Your task to perform on an android device: Open Youtube and go to "Your channel" Image 0: 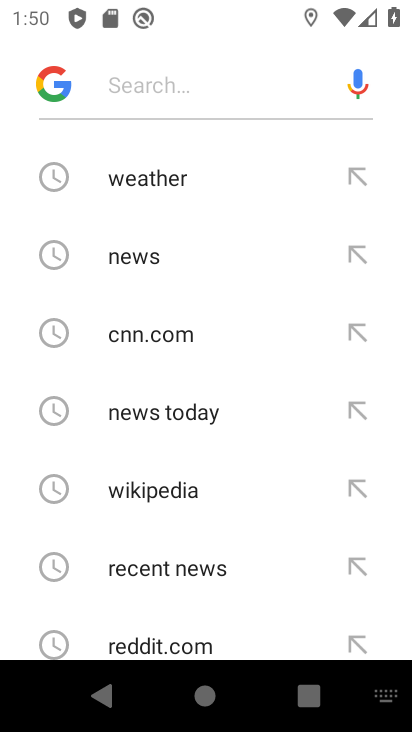
Step 0: press home button
Your task to perform on an android device: Open Youtube and go to "Your channel" Image 1: 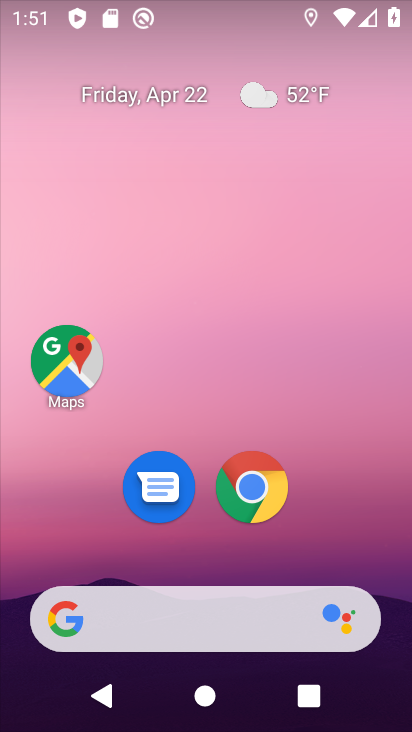
Step 1: drag from (195, 549) to (273, 10)
Your task to perform on an android device: Open Youtube and go to "Your channel" Image 2: 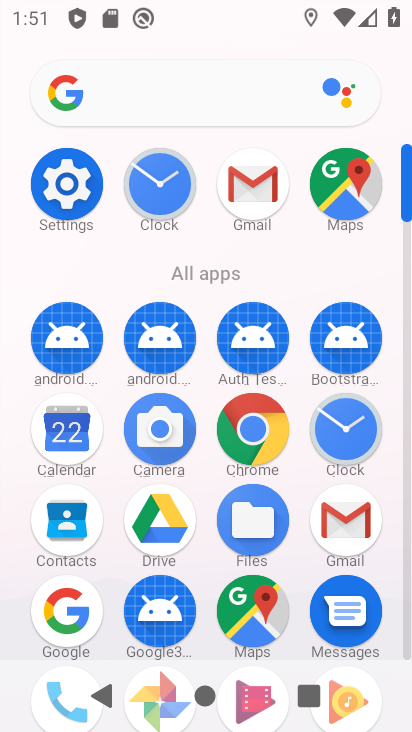
Step 2: drag from (292, 562) to (332, 114)
Your task to perform on an android device: Open Youtube and go to "Your channel" Image 3: 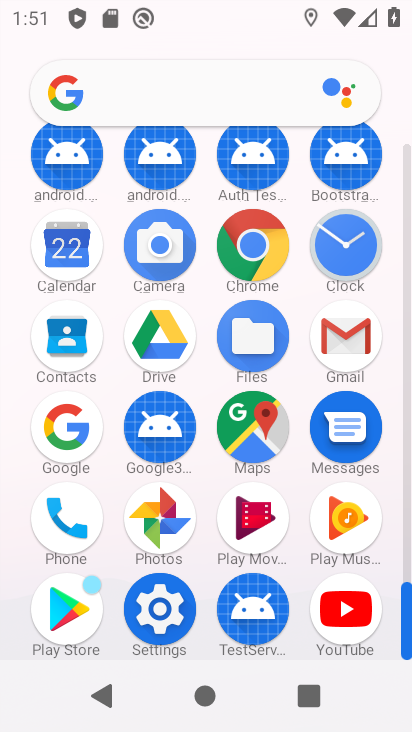
Step 3: click (348, 605)
Your task to perform on an android device: Open Youtube and go to "Your channel" Image 4: 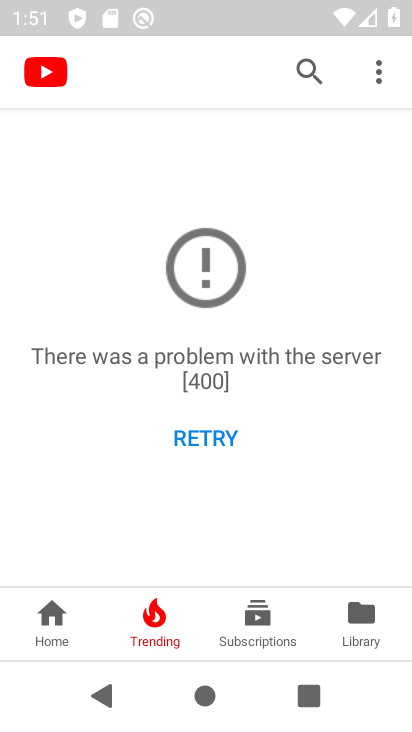
Step 4: click (378, 93)
Your task to perform on an android device: Open Youtube and go to "Your channel" Image 5: 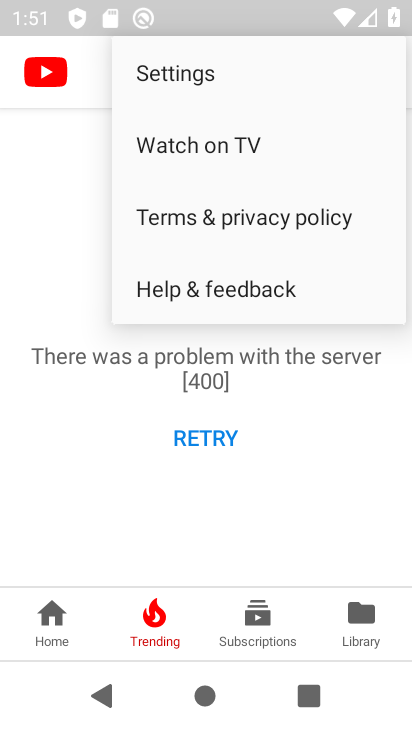
Step 5: click (153, 85)
Your task to perform on an android device: Open Youtube and go to "Your channel" Image 6: 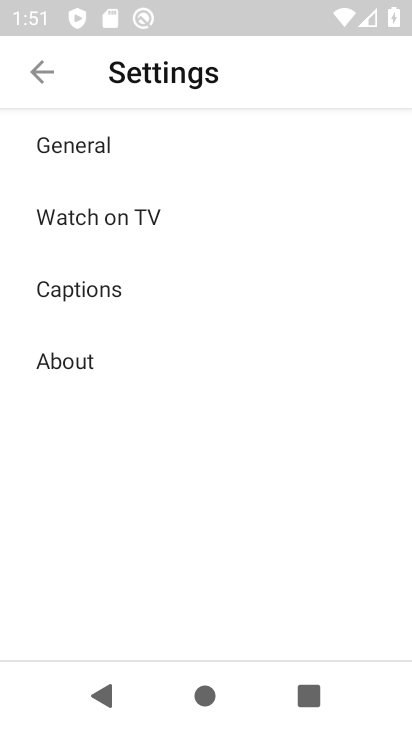
Step 6: click (68, 140)
Your task to perform on an android device: Open Youtube and go to "Your channel" Image 7: 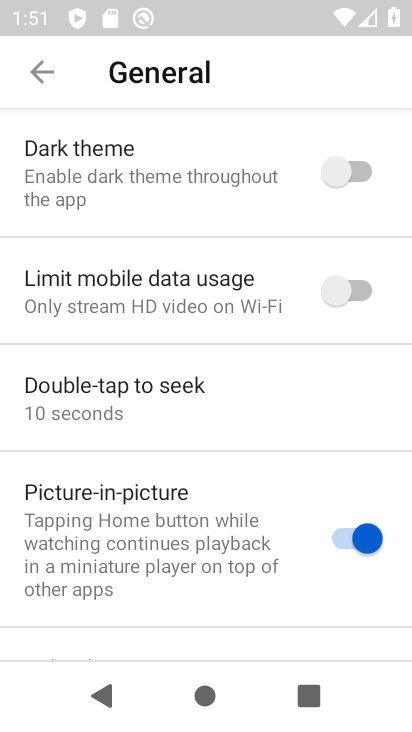
Step 7: task complete